Your task to perform on an android device: Play the last video I watched on Youtube Image 0: 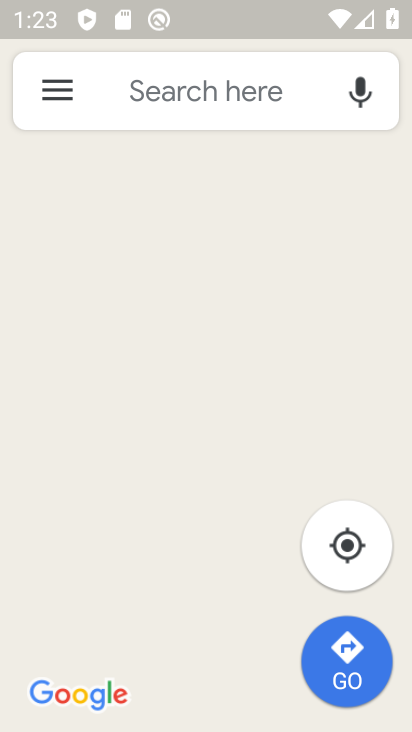
Step 0: press home button
Your task to perform on an android device: Play the last video I watched on Youtube Image 1: 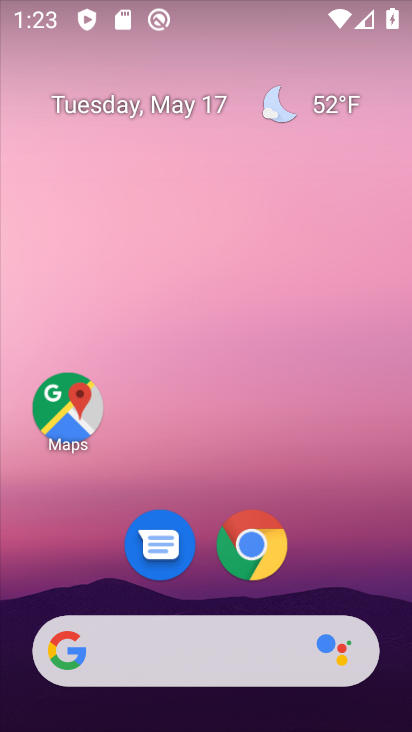
Step 1: drag from (350, 559) to (354, 104)
Your task to perform on an android device: Play the last video I watched on Youtube Image 2: 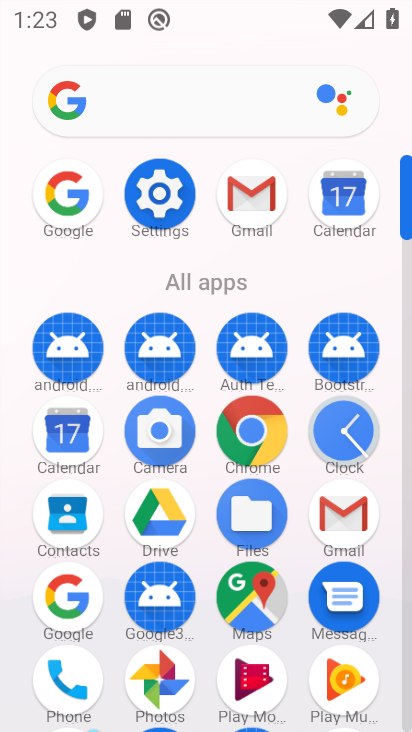
Step 2: drag from (197, 507) to (198, 292)
Your task to perform on an android device: Play the last video I watched on Youtube Image 3: 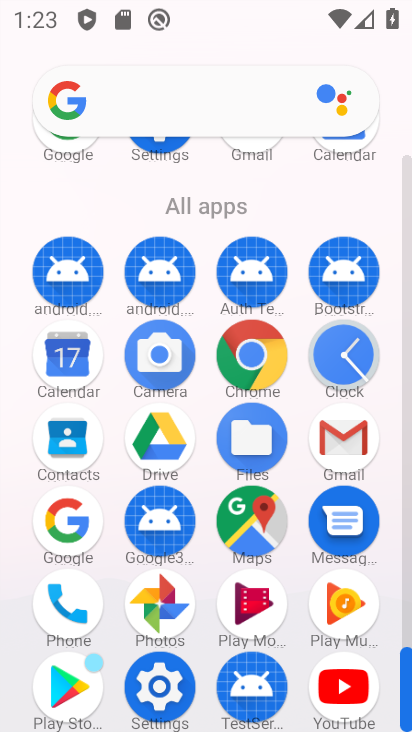
Step 3: click (341, 690)
Your task to perform on an android device: Play the last video I watched on Youtube Image 4: 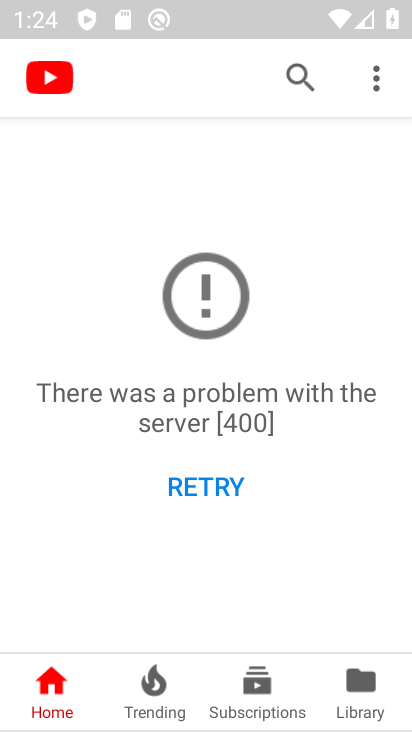
Step 4: click (347, 698)
Your task to perform on an android device: Play the last video I watched on Youtube Image 5: 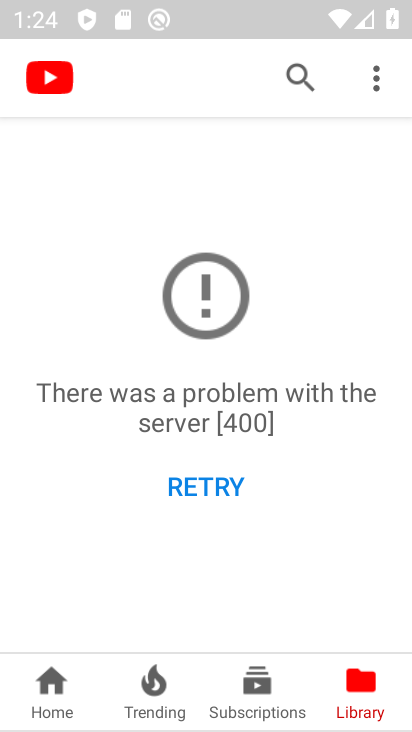
Step 5: task complete